Your task to perform on an android device: see sites visited before in the chrome app Image 0: 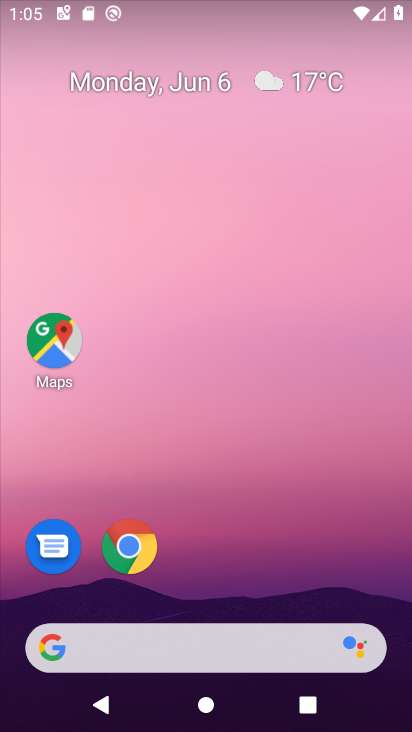
Step 0: drag from (203, 630) to (119, 157)
Your task to perform on an android device: see sites visited before in the chrome app Image 1: 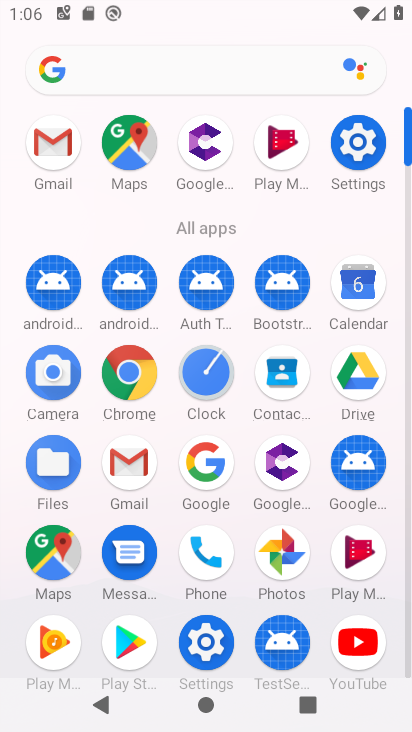
Step 1: click (121, 358)
Your task to perform on an android device: see sites visited before in the chrome app Image 2: 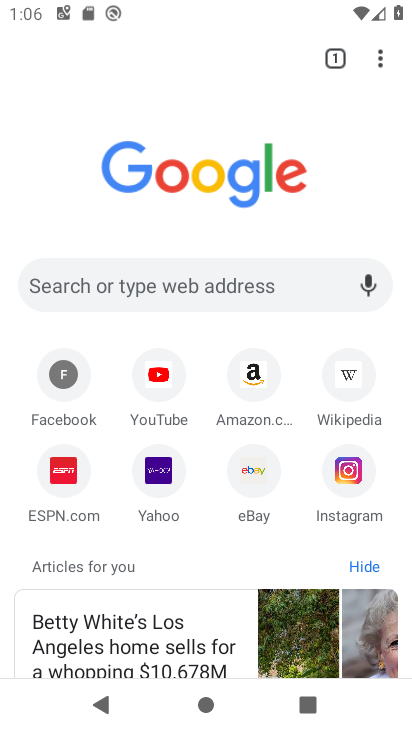
Step 2: task complete